Your task to perform on an android device: turn on translation in the chrome app Image 0: 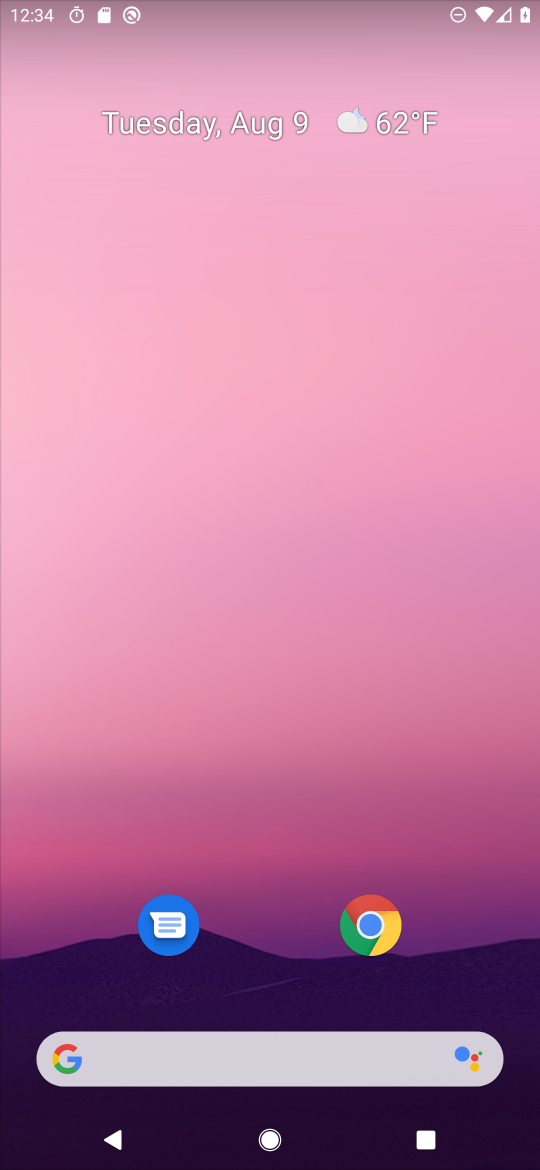
Step 0: drag from (254, 842) to (346, 312)
Your task to perform on an android device: turn on translation in the chrome app Image 1: 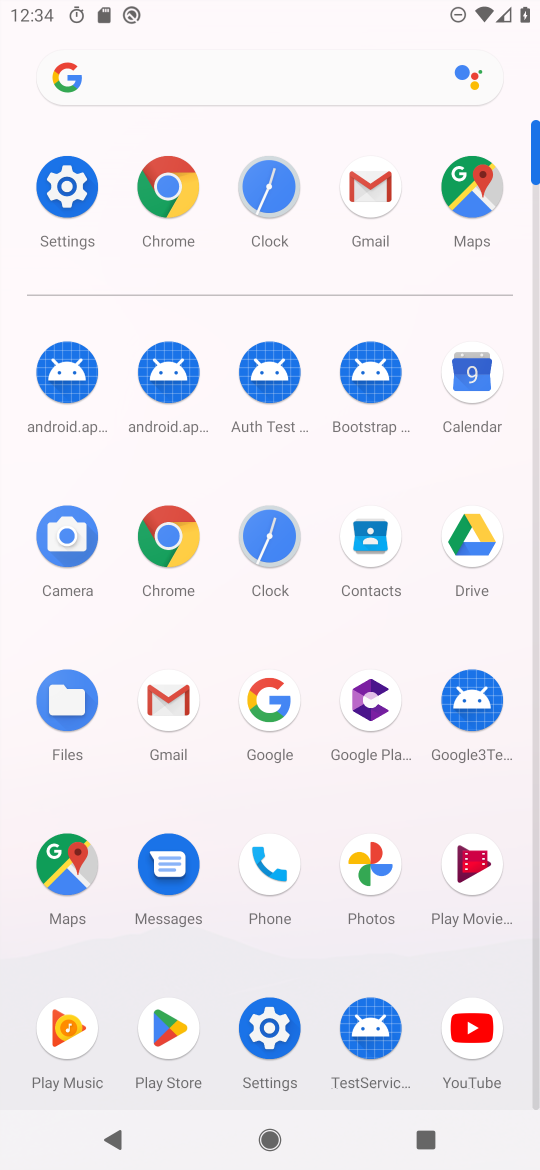
Step 1: click (169, 525)
Your task to perform on an android device: turn on translation in the chrome app Image 2: 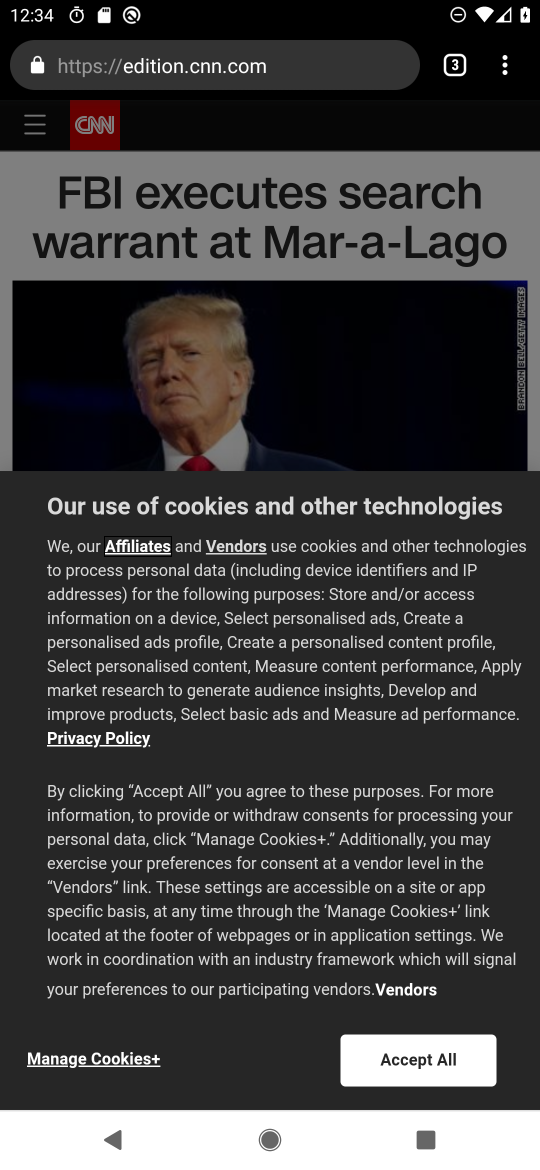
Step 2: drag from (510, 71) to (267, 801)
Your task to perform on an android device: turn on translation in the chrome app Image 3: 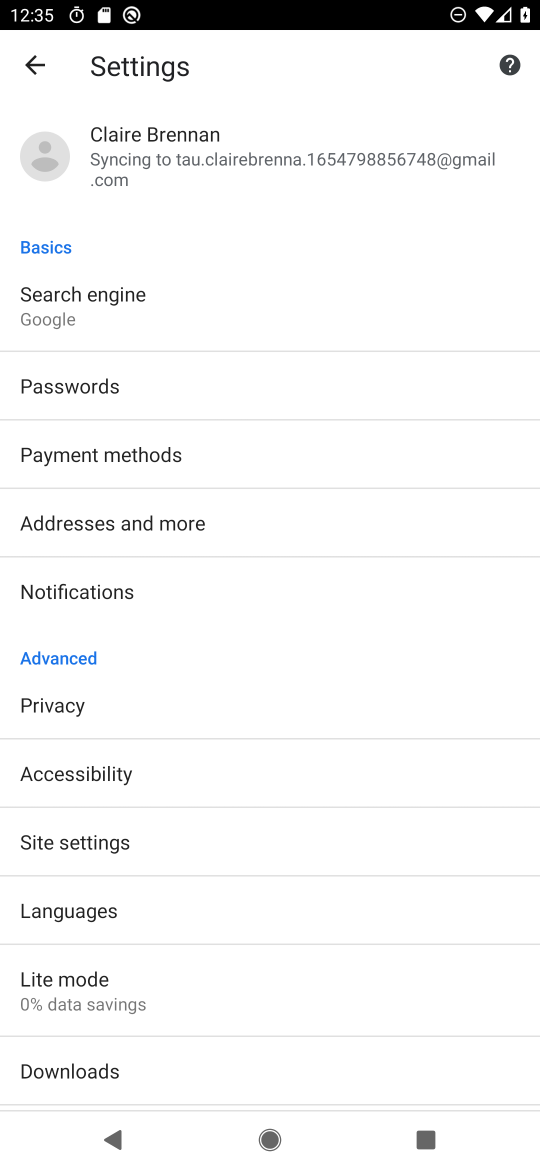
Step 3: click (60, 911)
Your task to perform on an android device: turn on translation in the chrome app Image 4: 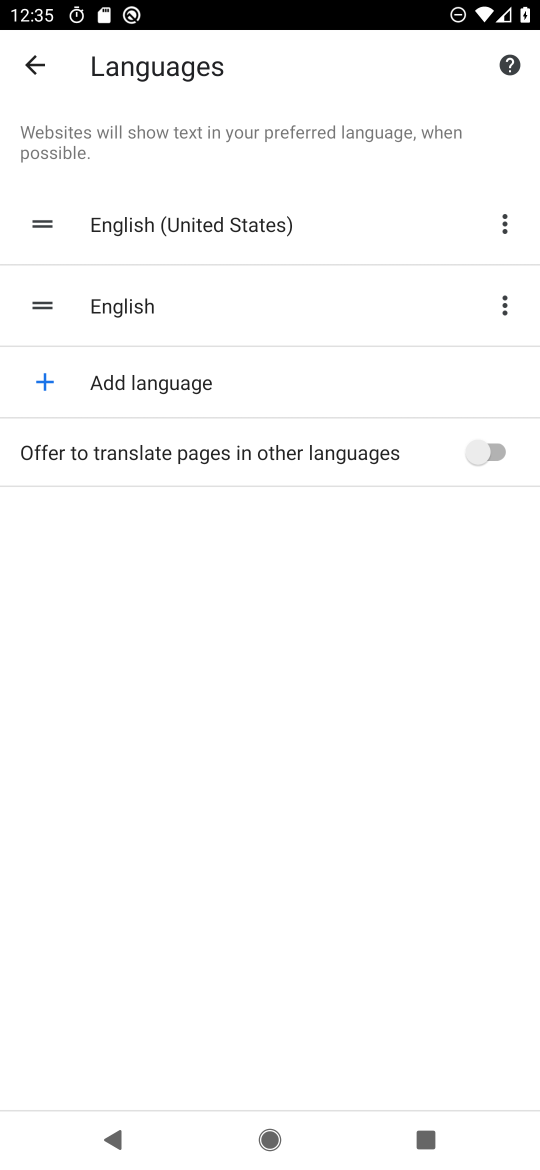
Step 4: click (458, 460)
Your task to perform on an android device: turn on translation in the chrome app Image 5: 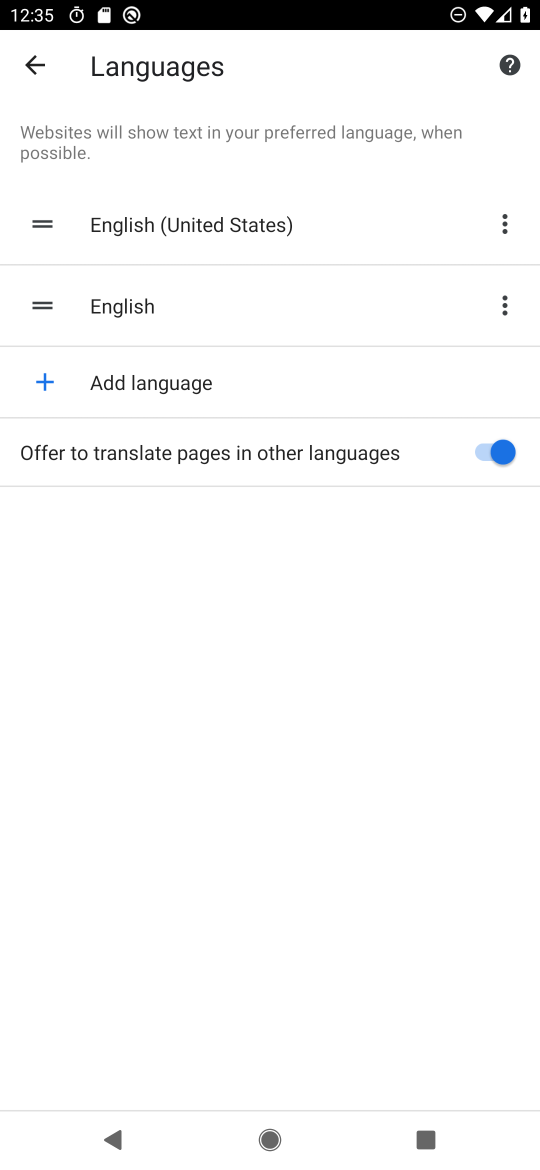
Step 5: task complete